Your task to perform on an android device: Go to Amazon Image 0: 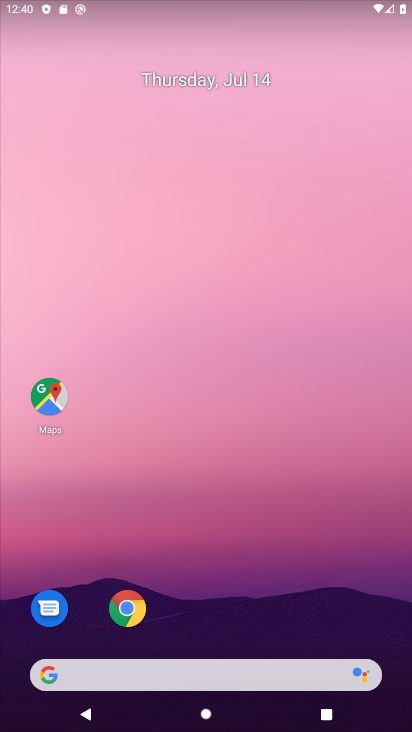
Step 0: drag from (276, 607) to (254, 0)
Your task to perform on an android device: Go to Amazon Image 1: 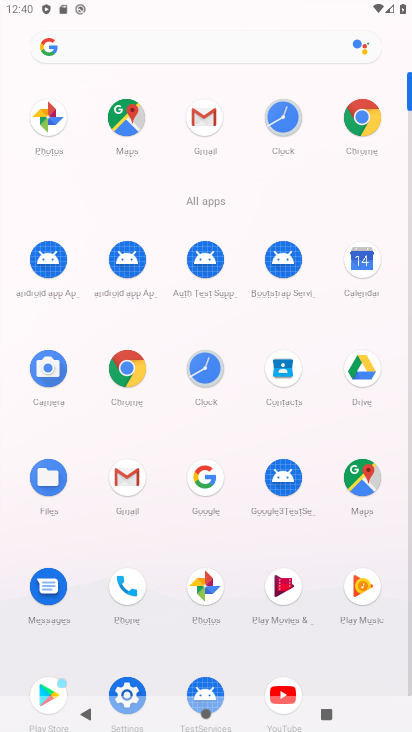
Step 1: click (345, 123)
Your task to perform on an android device: Go to Amazon Image 2: 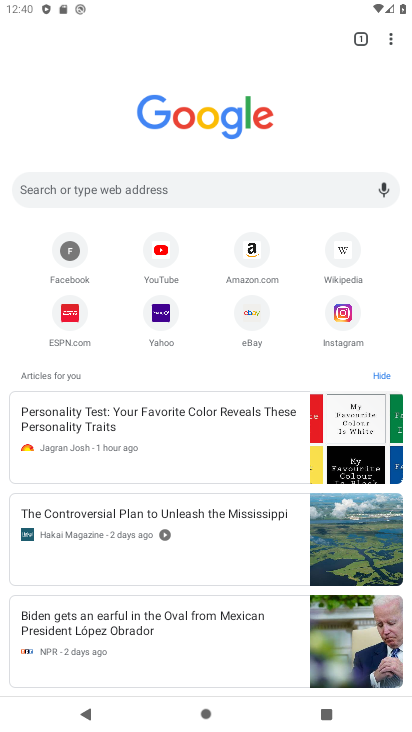
Step 2: click (255, 259)
Your task to perform on an android device: Go to Amazon Image 3: 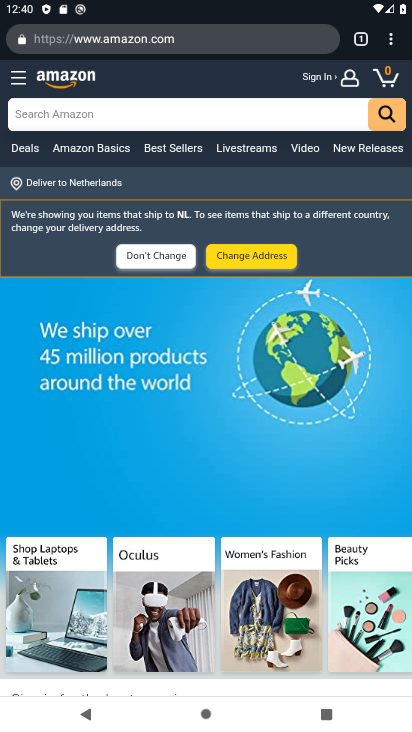
Step 3: task complete